Your task to perform on an android device: toggle show notifications on the lock screen Image 0: 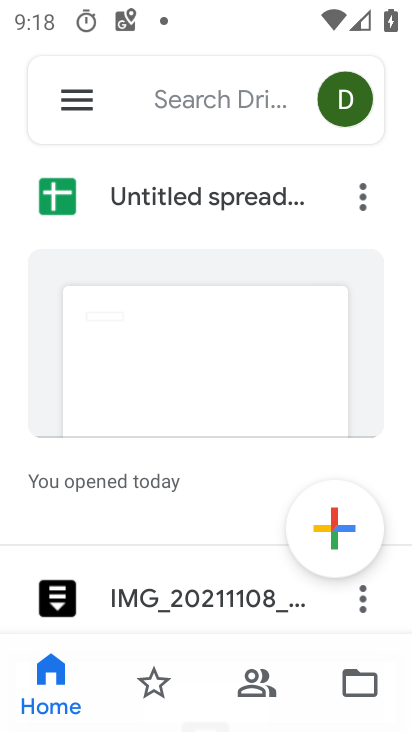
Step 0: press home button
Your task to perform on an android device: toggle show notifications on the lock screen Image 1: 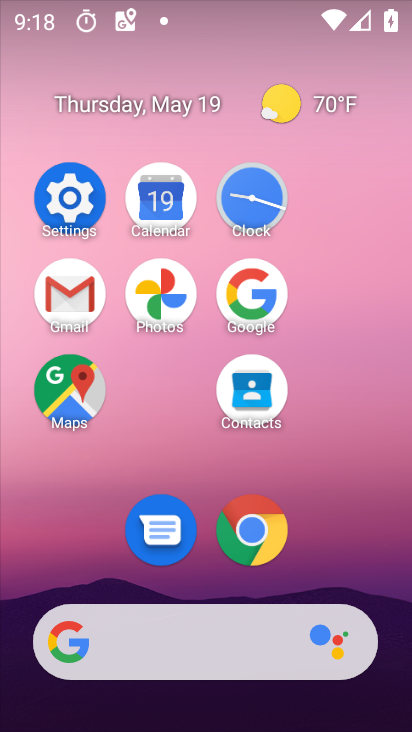
Step 1: click (48, 190)
Your task to perform on an android device: toggle show notifications on the lock screen Image 2: 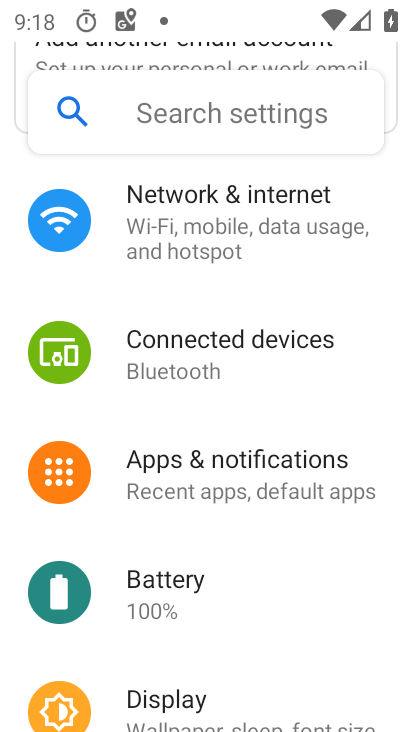
Step 2: click (262, 463)
Your task to perform on an android device: toggle show notifications on the lock screen Image 3: 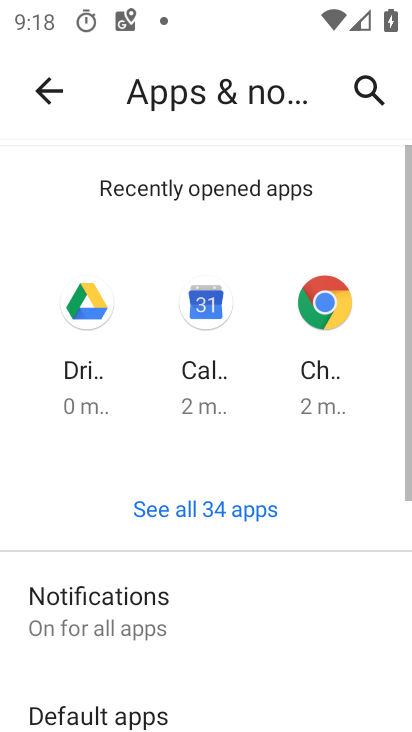
Step 3: click (182, 617)
Your task to perform on an android device: toggle show notifications on the lock screen Image 4: 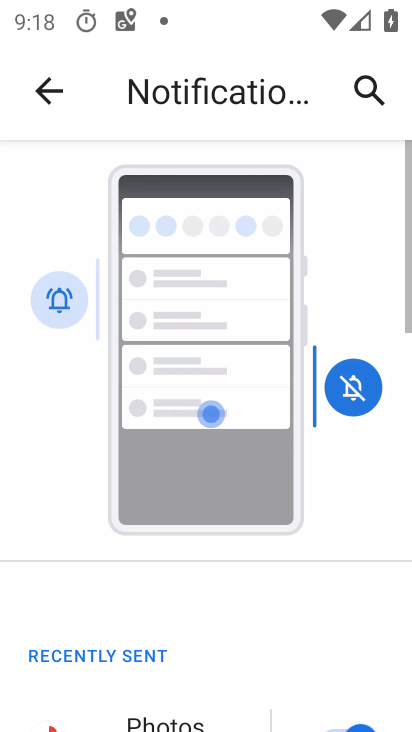
Step 4: drag from (181, 616) to (144, 94)
Your task to perform on an android device: toggle show notifications on the lock screen Image 5: 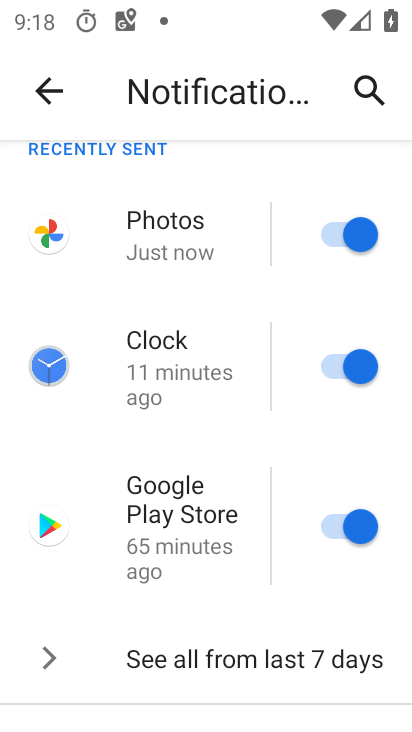
Step 5: drag from (173, 517) to (171, 123)
Your task to perform on an android device: toggle show notifications on the lock screen Image 6: 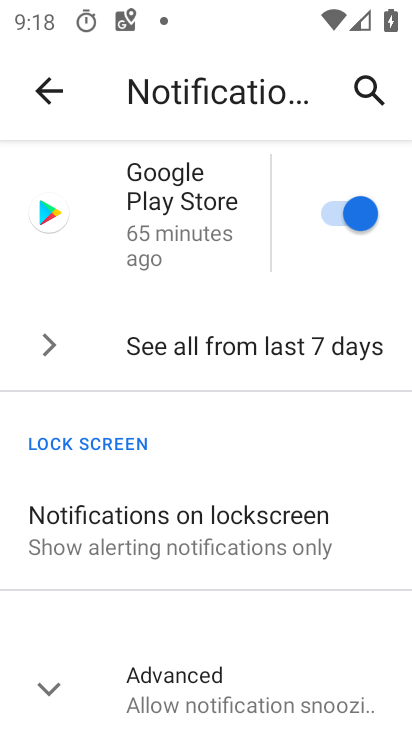
Step 6: click (174, 517)
Your task to perform on an android device: toggle show notifications on the lock screen Image 7: 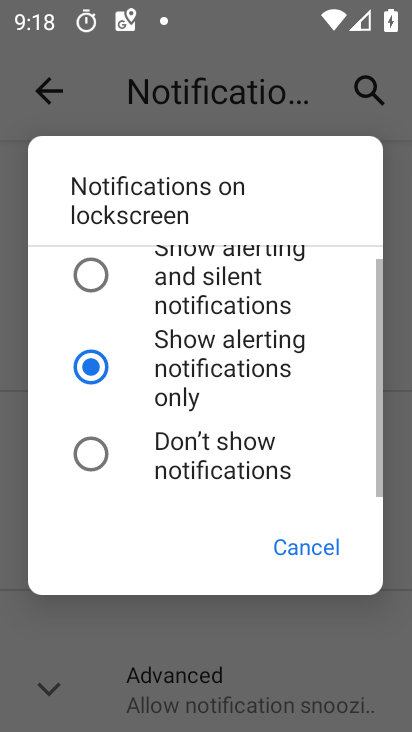
Step 7: click (138, 257)
Your task to perform on an android device: toggle show notifications on the lock screen Image 8: 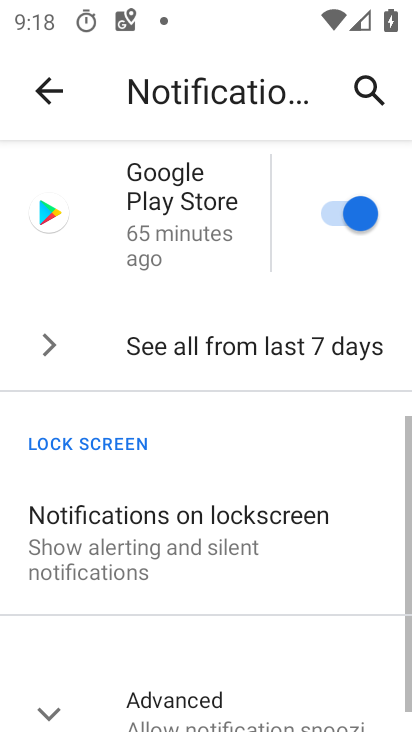
Step 8: task complete